Your task to perform on an android device: See recent photos Image 0: 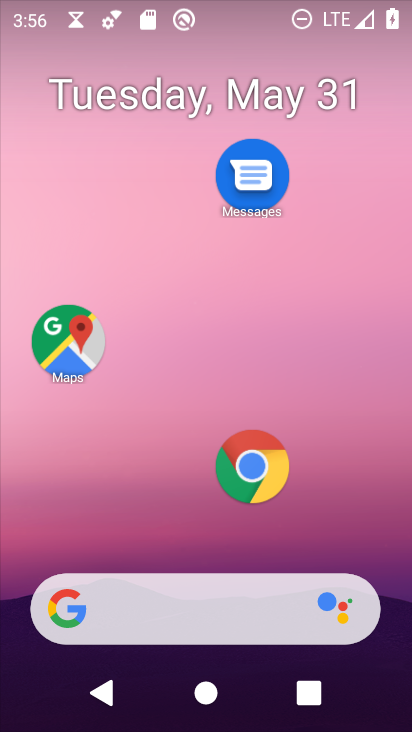
Step 0: drag from (114, 498) to (189, 173)
Your task to perform on an android device: See recent photos Image 1: 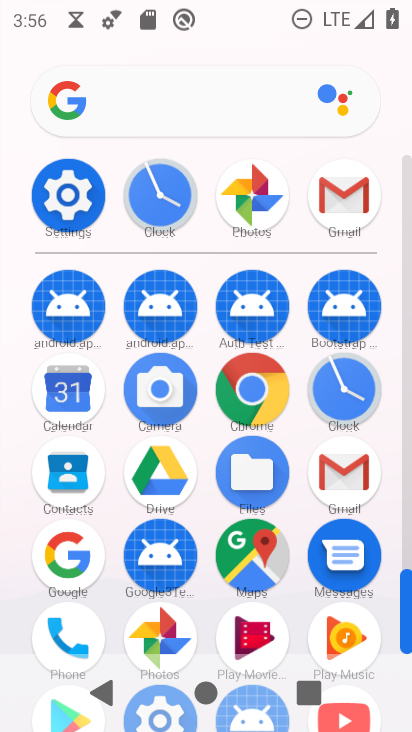
Step 1: click (169, 630)
Your task to perform on an android device: See recent photos Image 2: 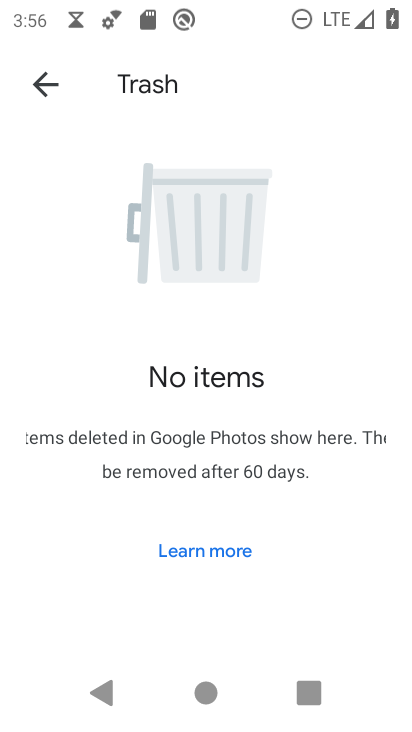
Step 2: click (52, 84)
Your task to perform on an android device: See recent photos Image 3: 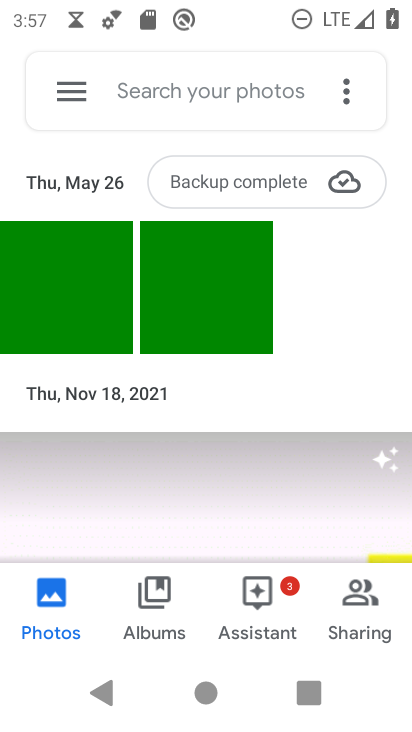
Step 3: task complete